Your task to perform on an android device: Add beats solo 3 to the cart on amazon.com, then select checkout. Image 0: 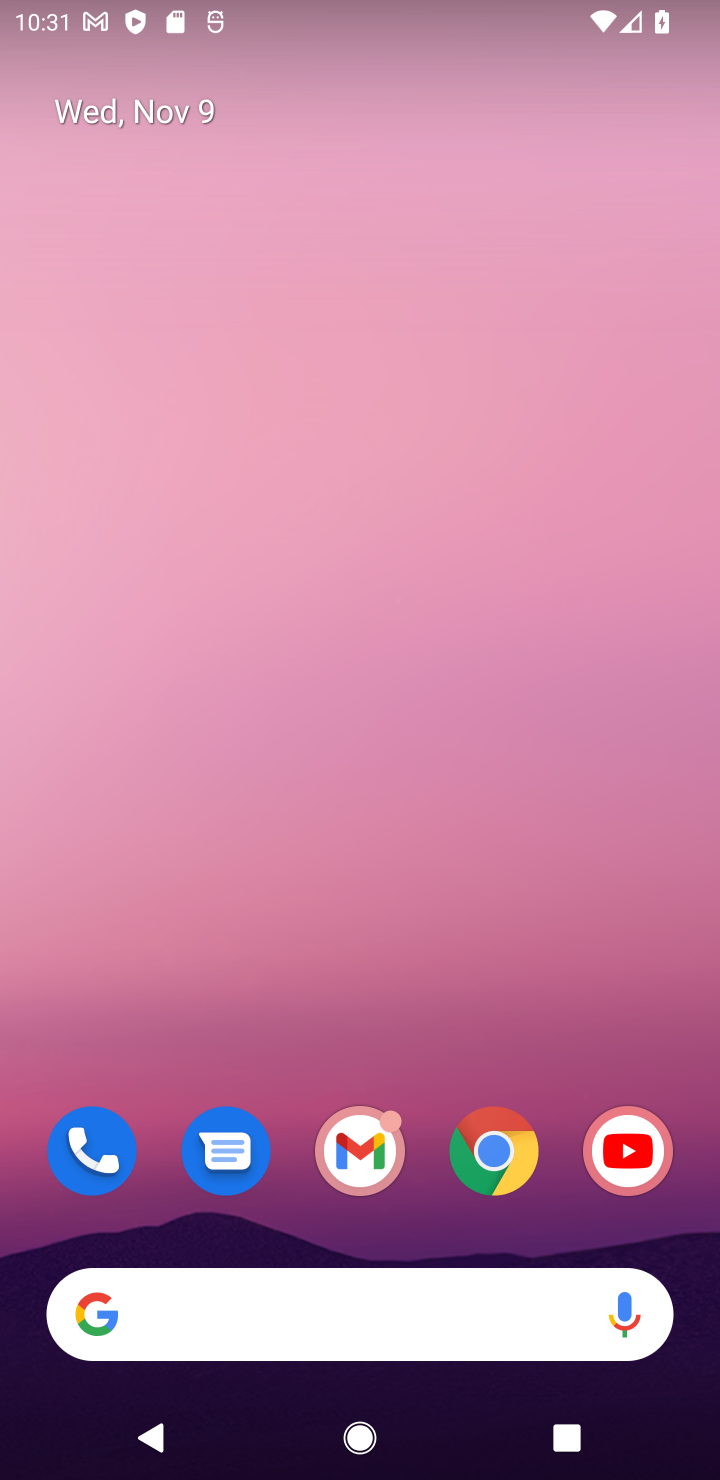
Step 0: click (498, 1154)
Your task to perform on an android device: Add beats solo 3 to the cart on amazon.com, then select checkout. Image 1: 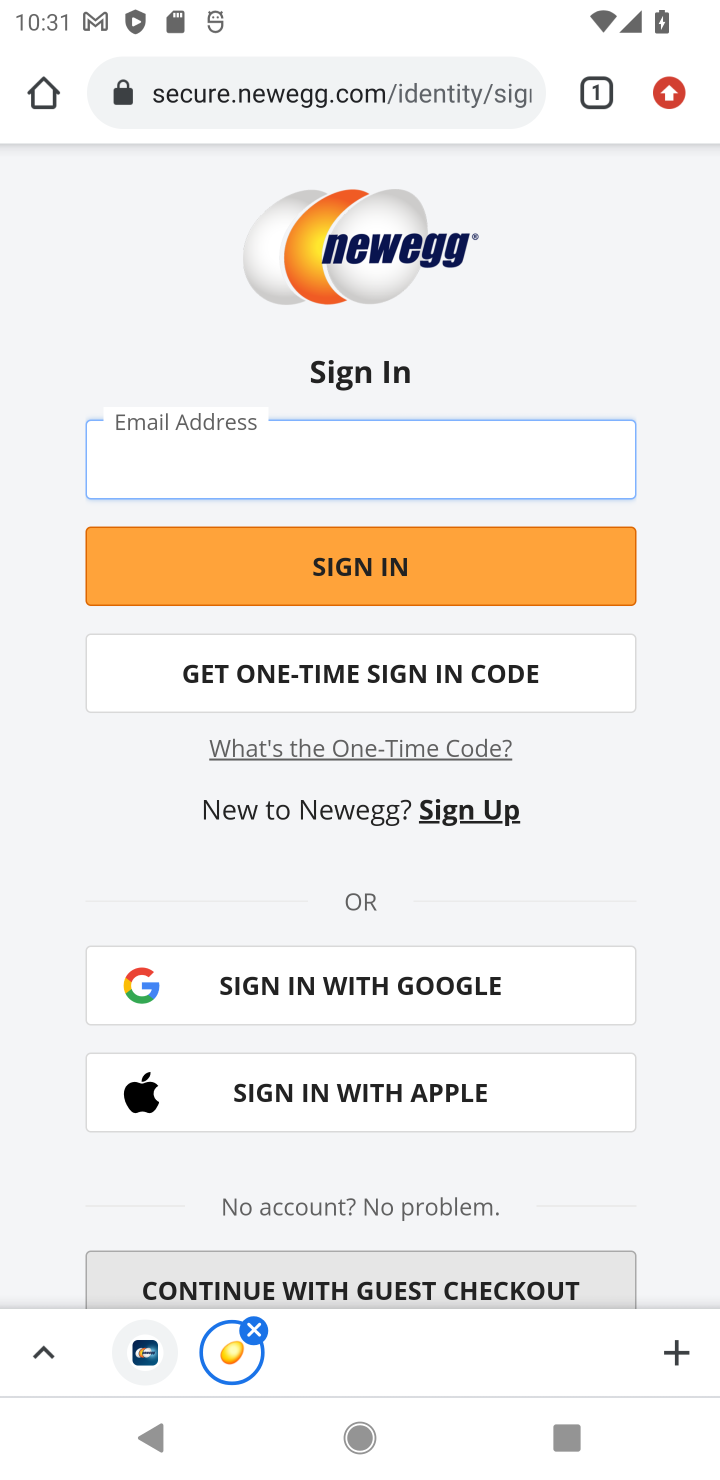
Step 1: click (266, 91)
Your task to perform on an android device: Add beats solo 3 to the cart on amazon.com, then select checkout. Image 2: 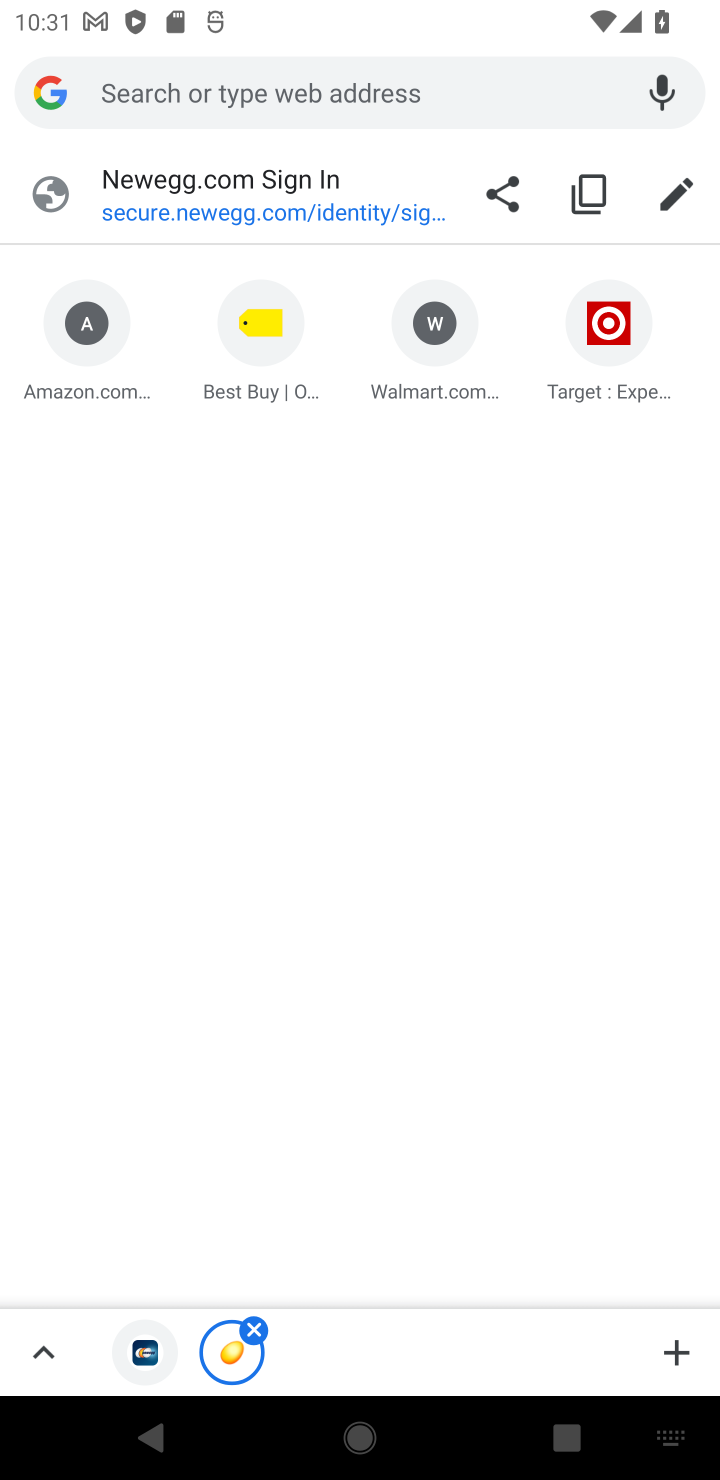
Step 2: click (75, 333)
Your task to perform on an android device: Add beats solo 3 to the cart on amazon.com, then select checkout. Image 3: 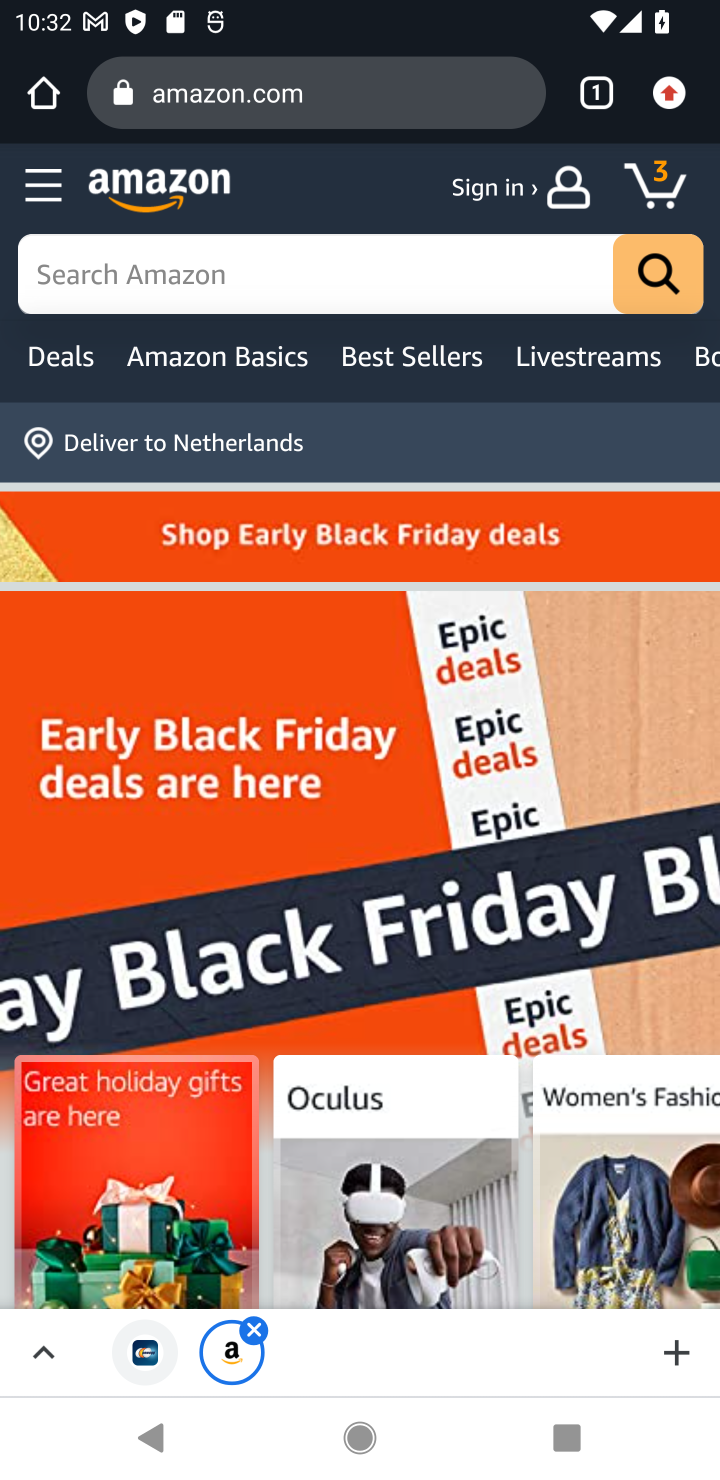
Step 3: click (501, 275)
Your task to perform on an android device: Add beats solo 3 to the cart on amazon.com, then select checkout. Image 4: 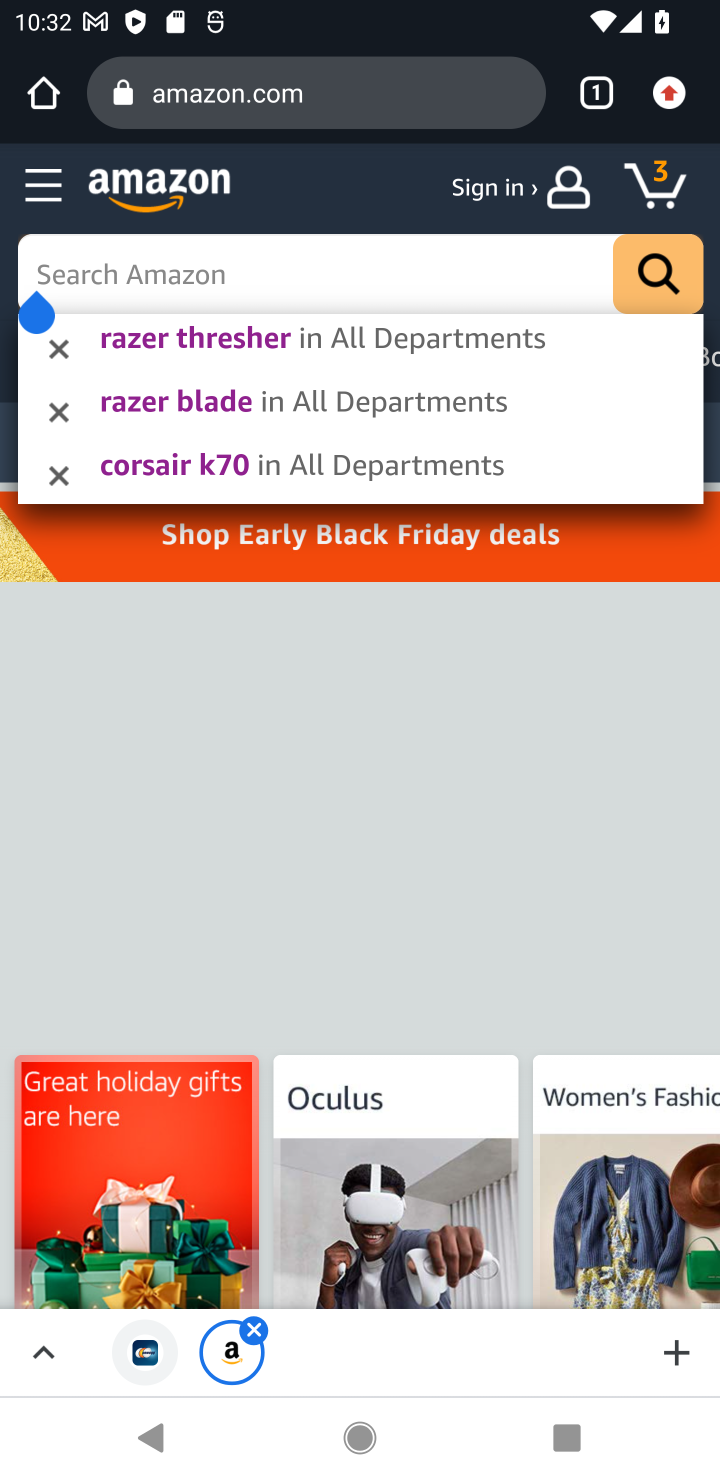
Step 4: type "beats solo 3"
Your task to perform on an android device: Add beats solo 3 to the cart on amazon.com, then select checkout. Image 5: 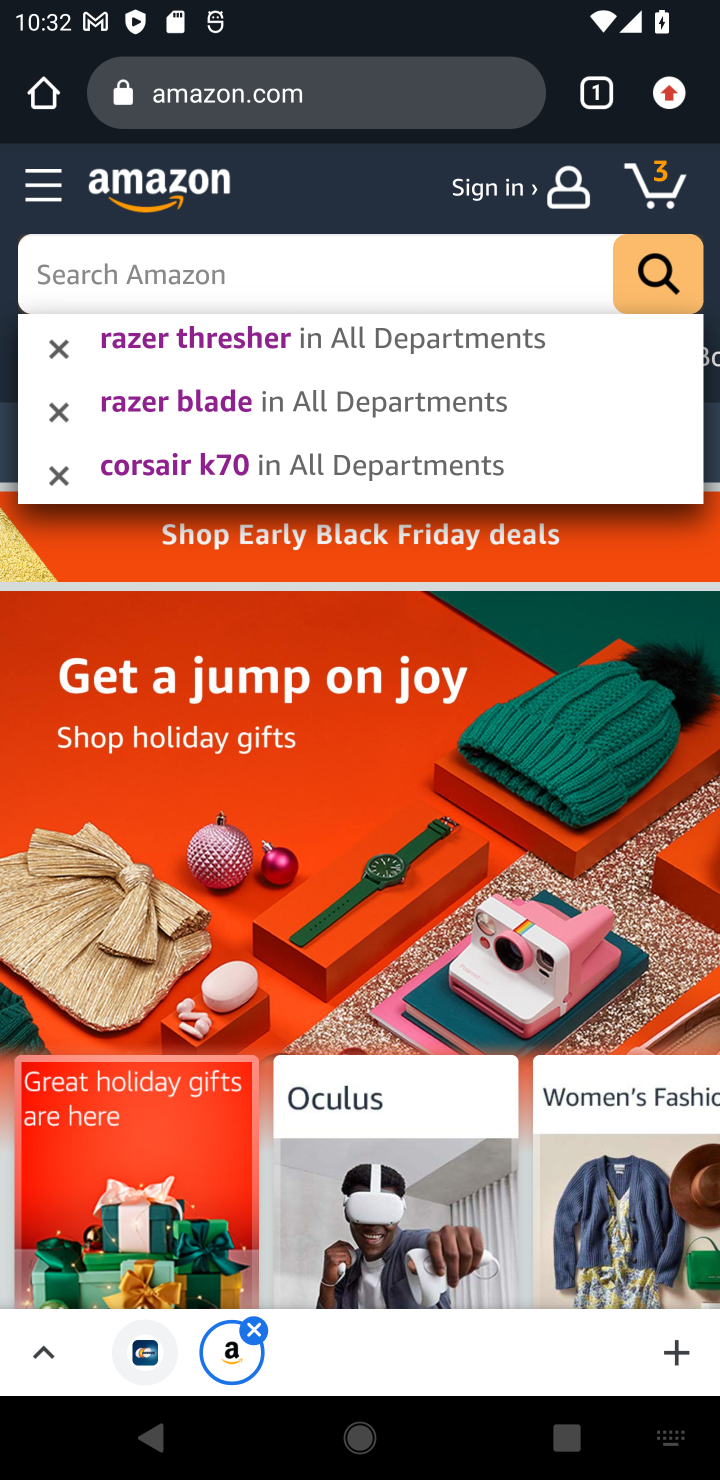
Step 5: press enter
Your task to perform on an android device: Add beats solo 3 to the cart on amazon.com, then select checkout. Image 6: 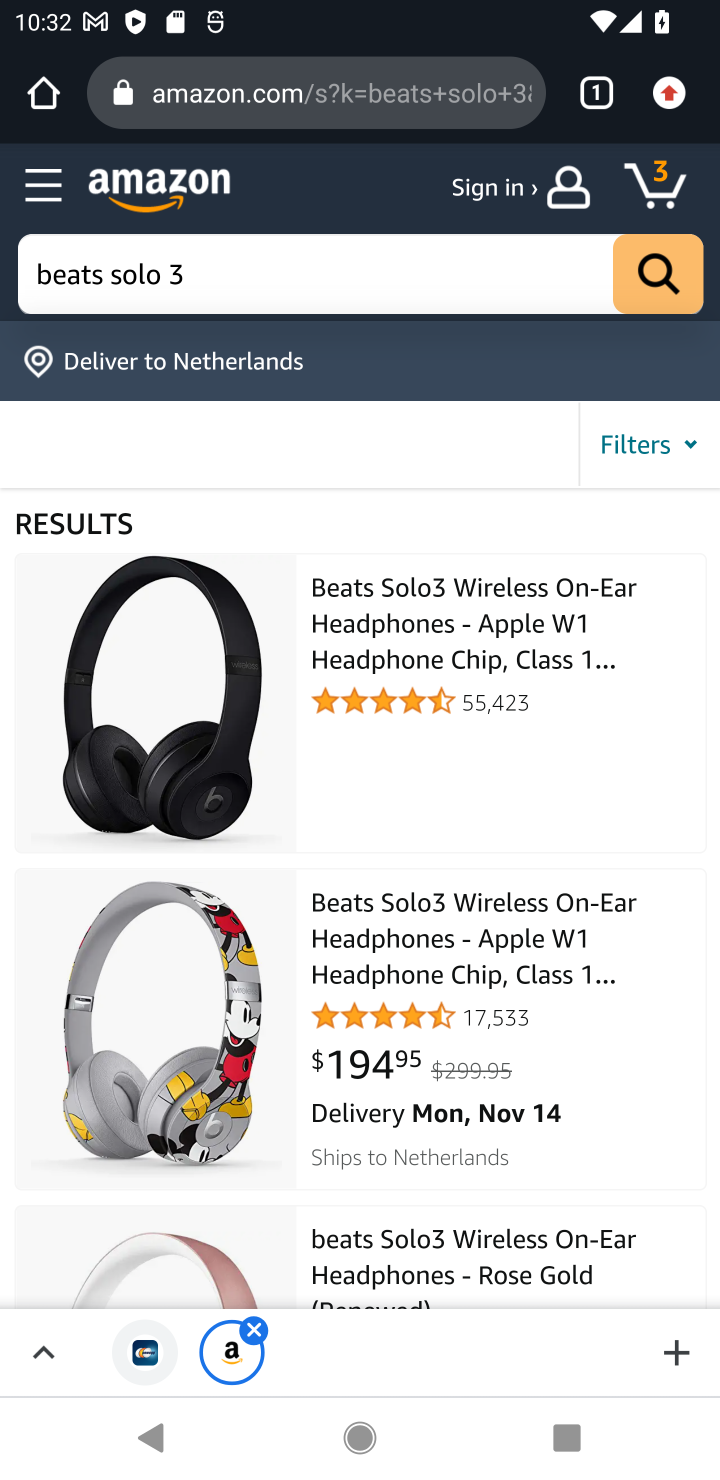
Step 6: click (147, 702)
Your task to perform on an android device: Add beats solo 3 to the cart on amazon.com, then select checkout. Image 7: 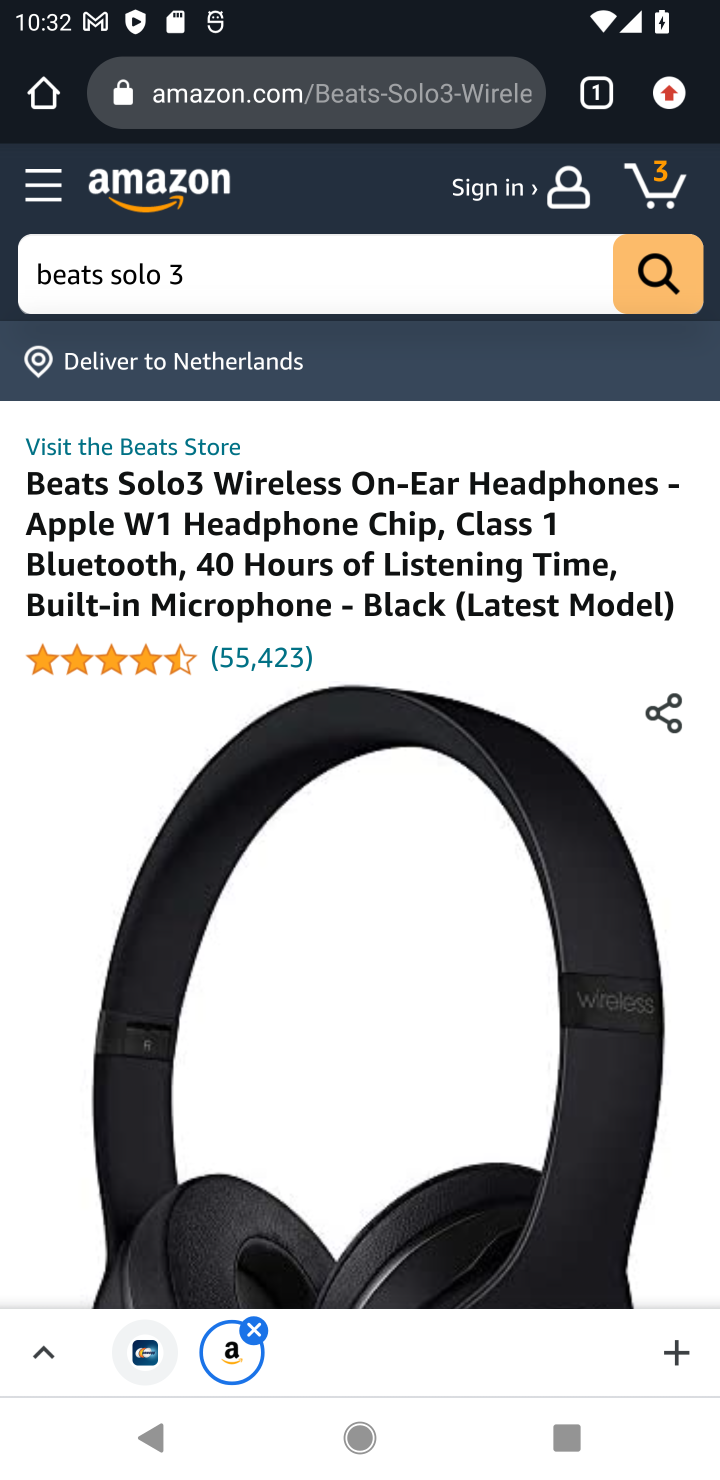
Step 7: drag from (532, 1142) to (533, 210)
Your task to perform on an android device: Add beats solo 3 to the cart on amazon.com, then select checkout. Image 8: 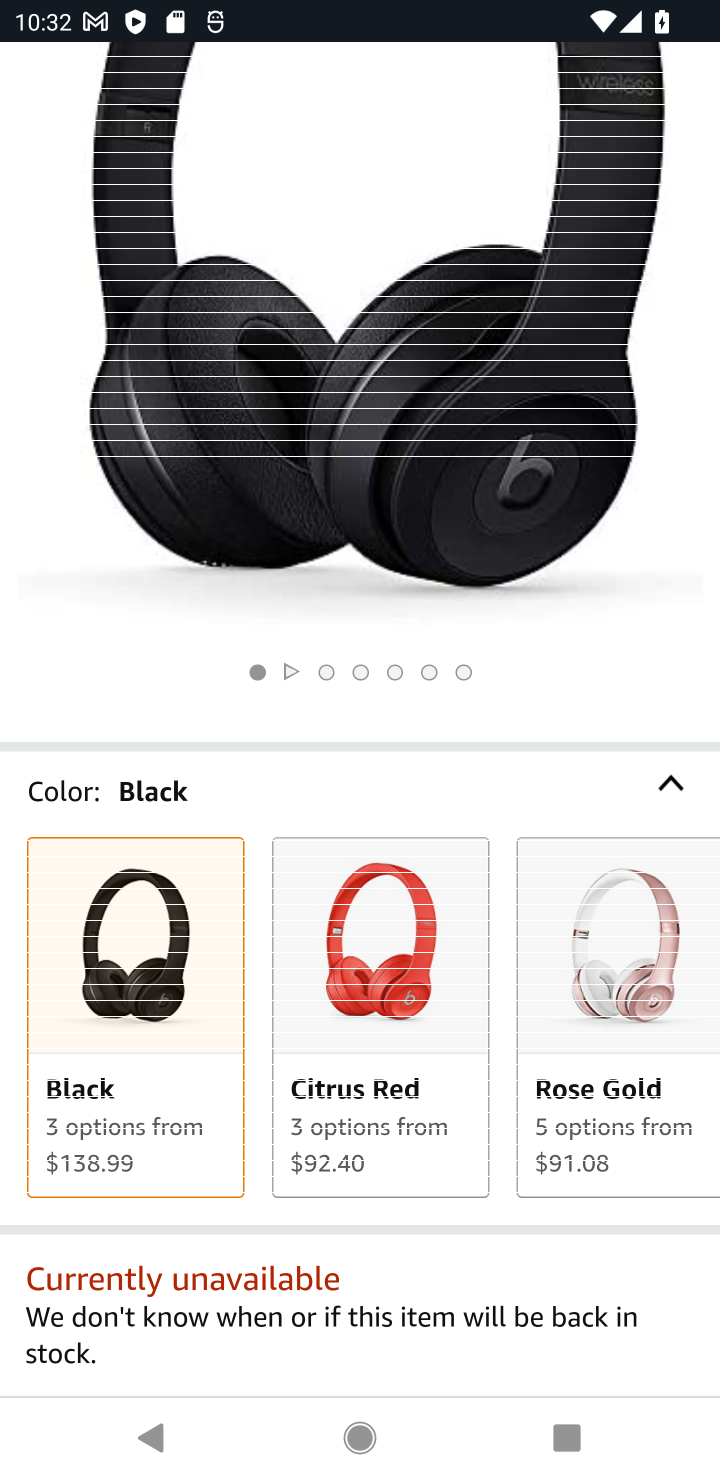
Step 8: drag from (519, 1232) to (520, 487)
Your task to perform on an android device: Add beats solo 3 to the cart on amazon.com, then select checkout. Image 9: 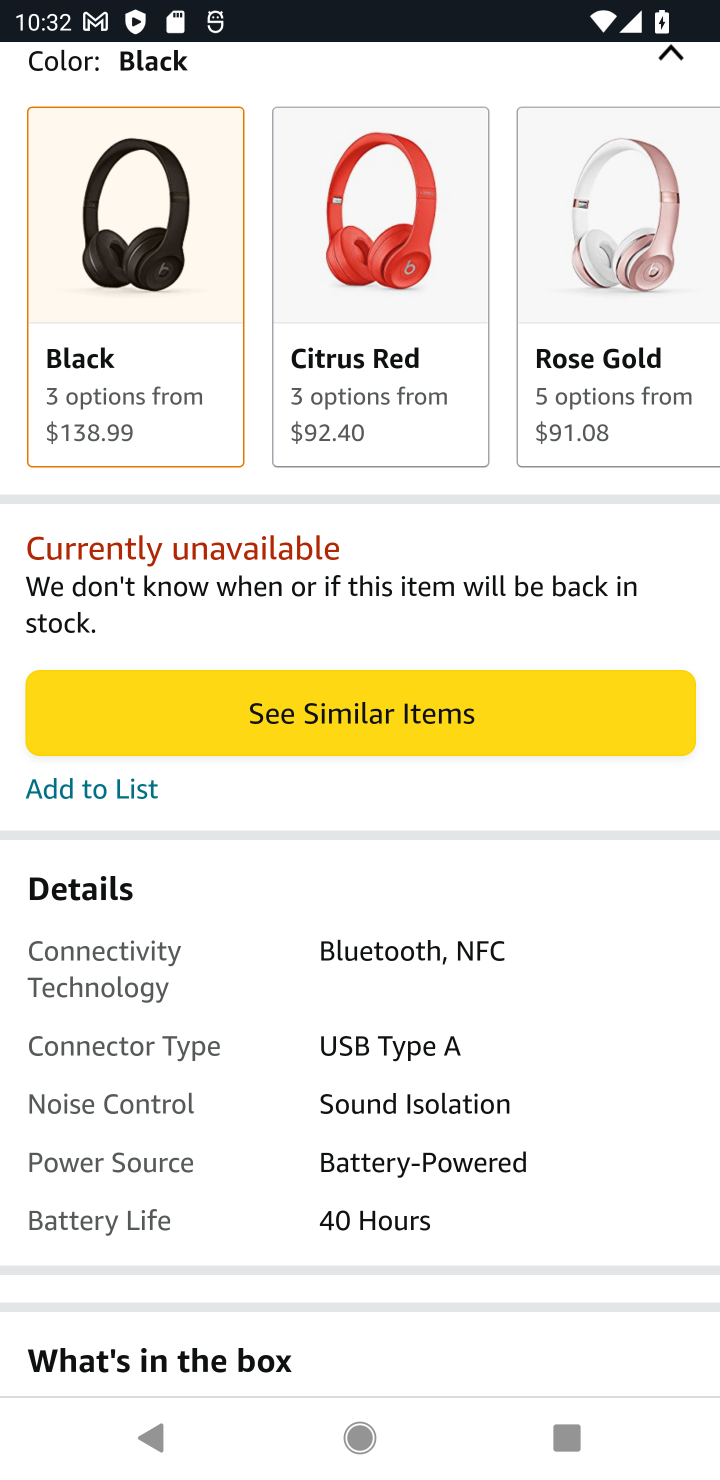
Step 9: press back button
Your task to perform on an android device: Add beats solo 3 to the cart on amazon.com, then select checkout. Image 10: 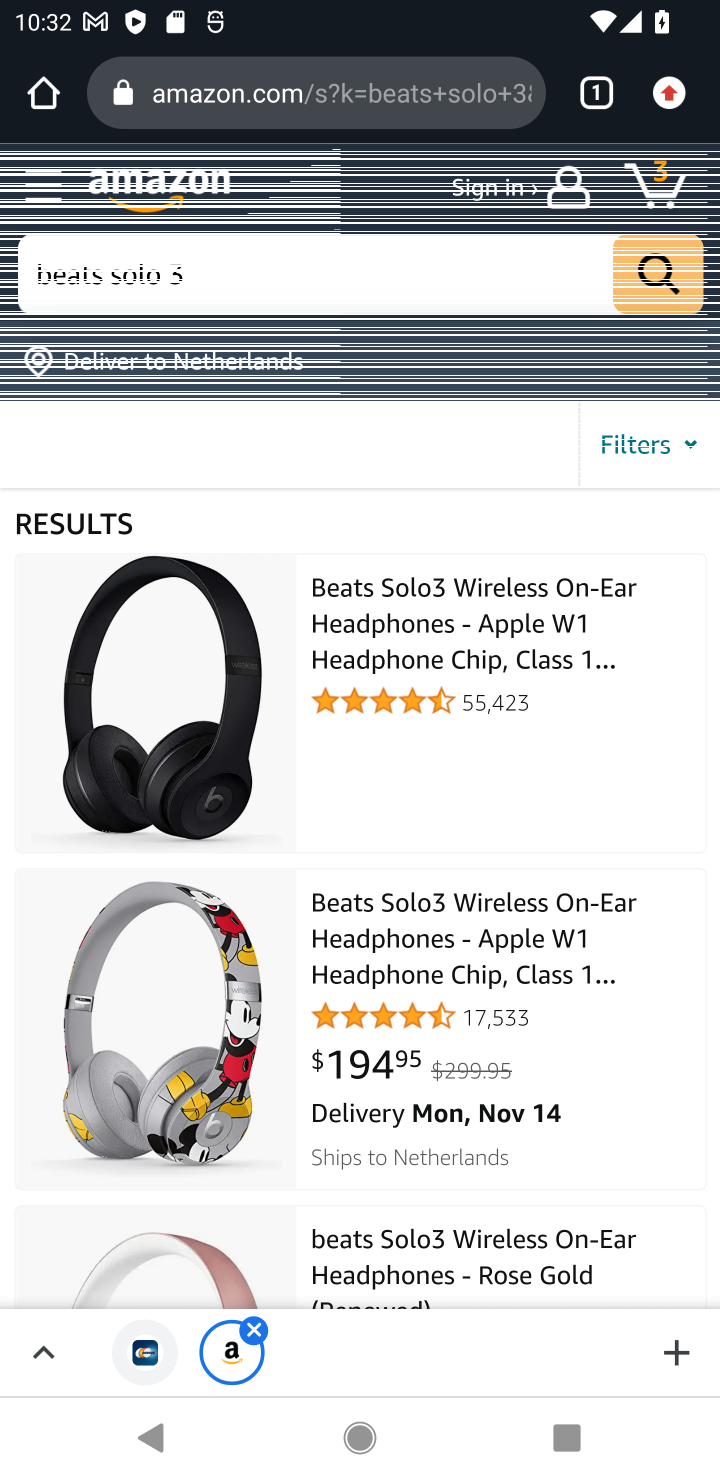
Step 10: click (175, 969)
Your task to perform on an android device: Add beats solo 3 to the cart on amazon.com, then select checkout. Image 11: 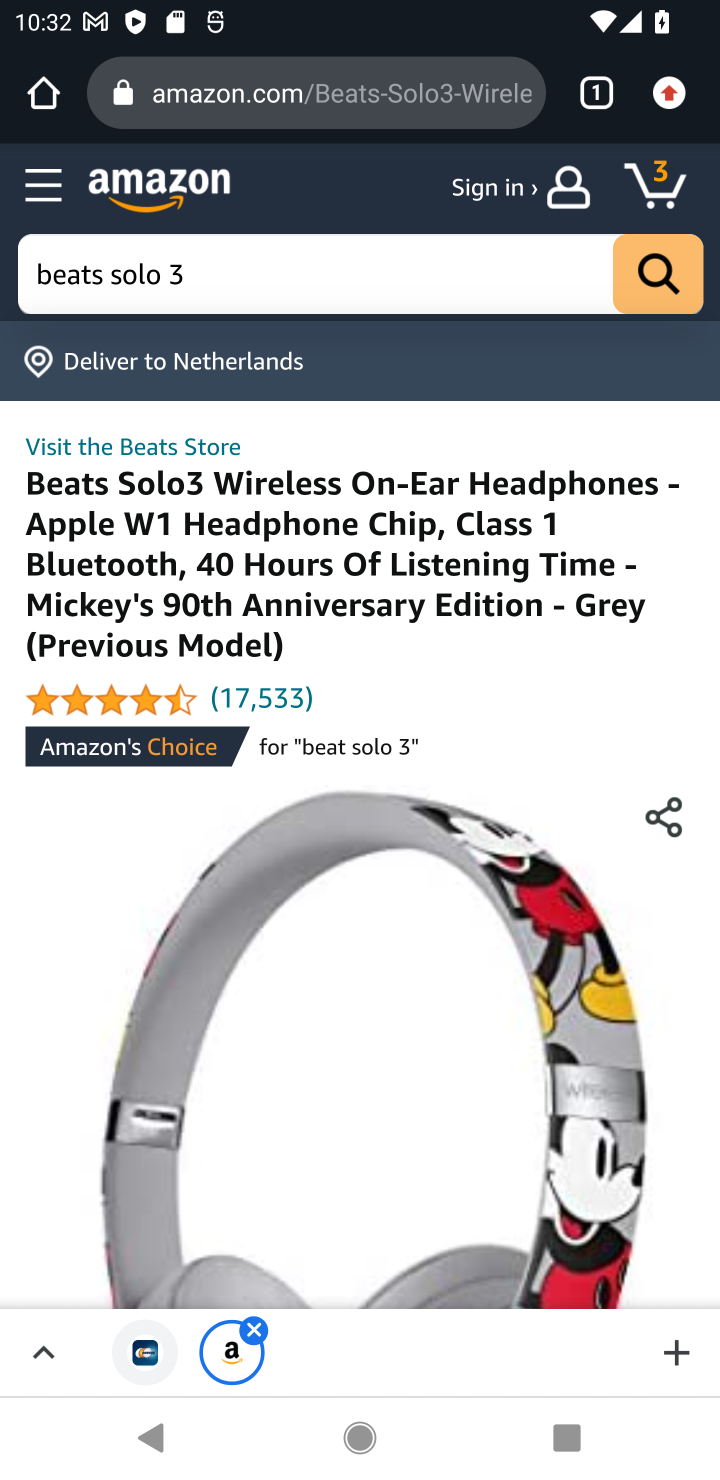
Step 11: drag from (409, 819) to (590, 364)
Your task to perform on an android device: Add beats solo 3 to the cart on amazon.com, then select checkout. Image 12: 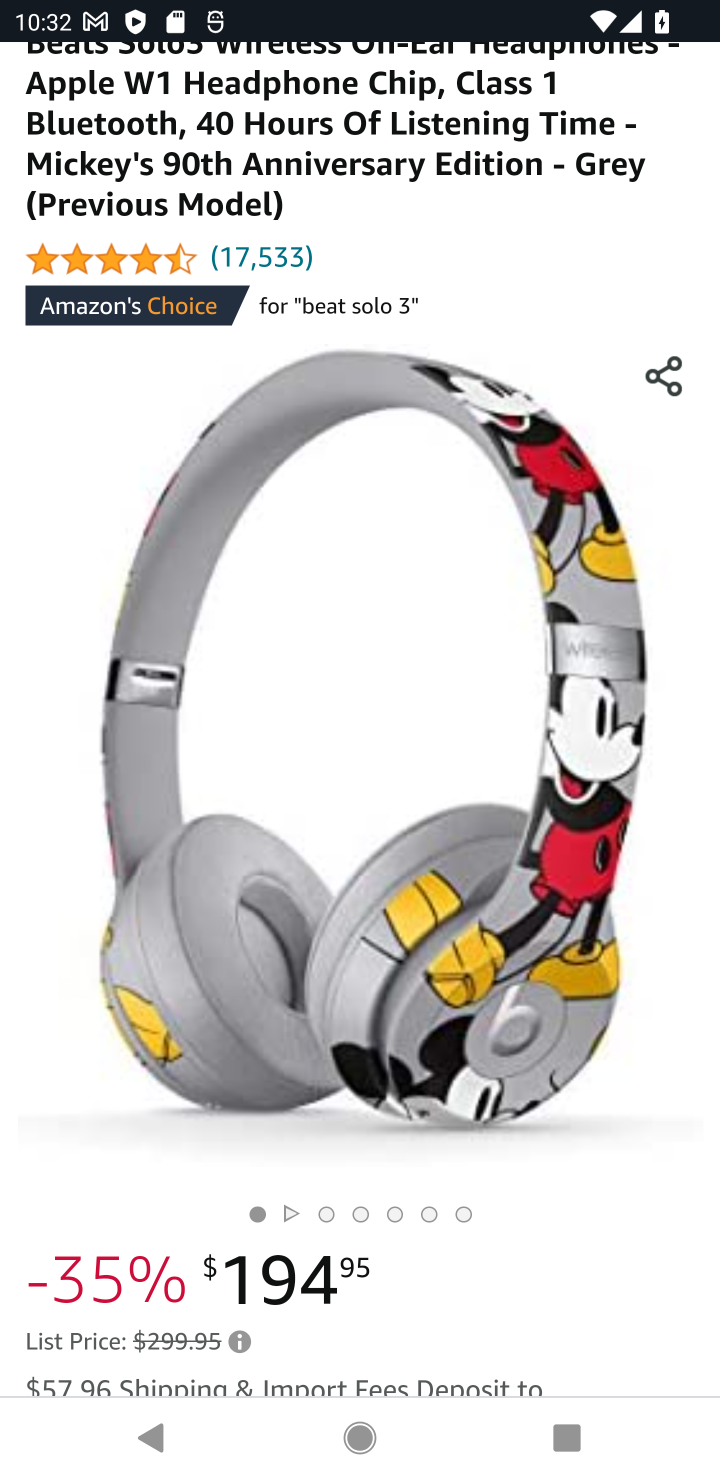
Step 12: drag from (590, 853) to (570, 306)
Your task to perform on an android device: Add beats solo 3 to the cart on amazon.com, then select checkout. Image 13: 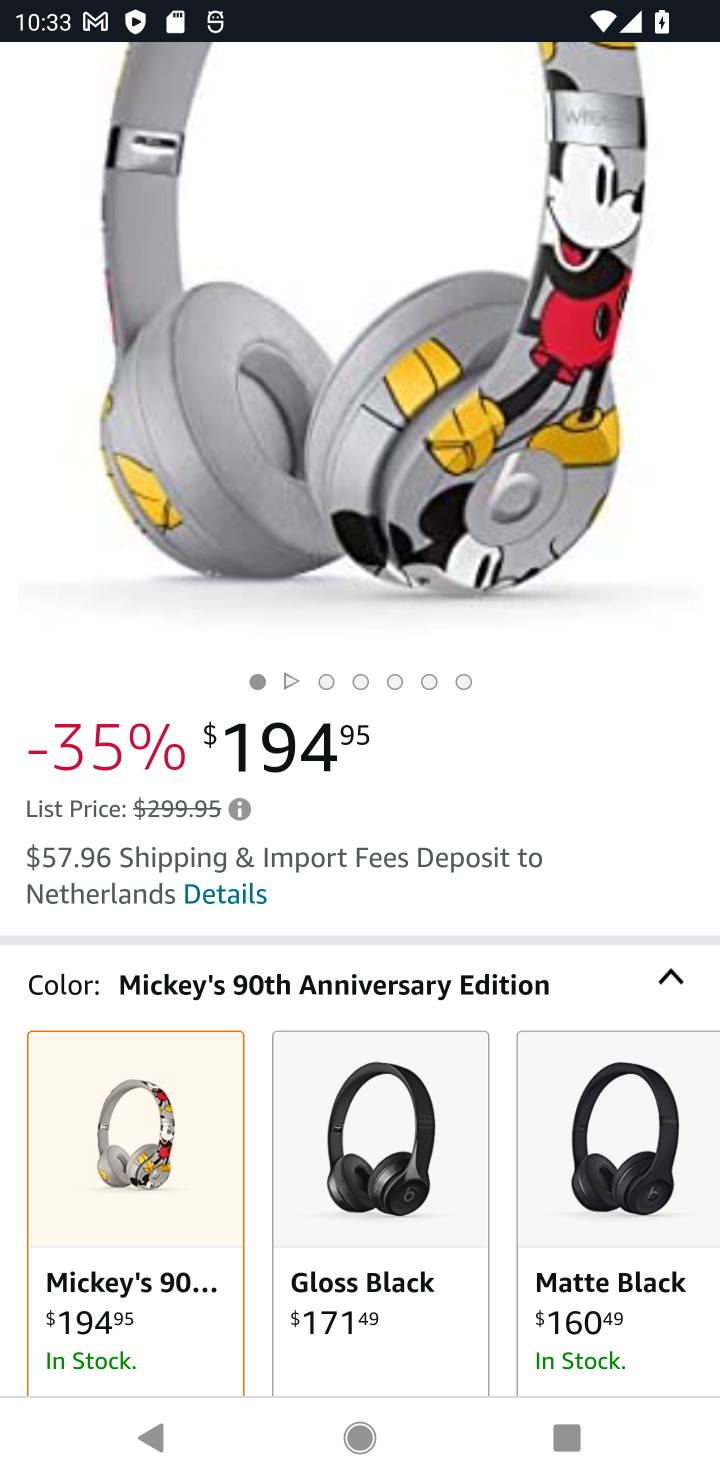
Step 13: drag from (508, 1281) to (480, 482)
Your task to perform on an android device: Add beats solo 3 to the cart on amazon.com, then select checkout. Image 14: 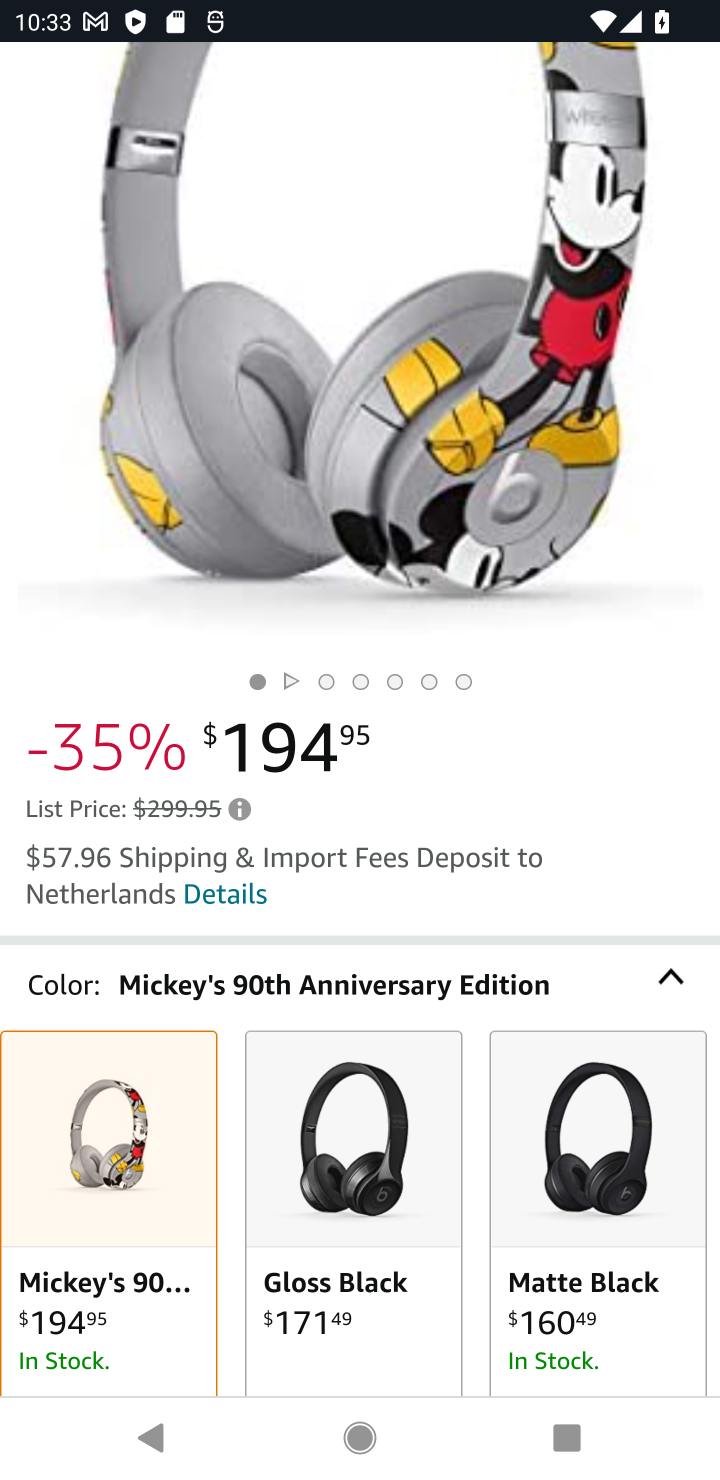
Step 14: drag from (579, 749) to (510, 304)
Your task to perform on an android device: Add beats solo 3 to the cart on amazon.com, then select checkout. Image 15: 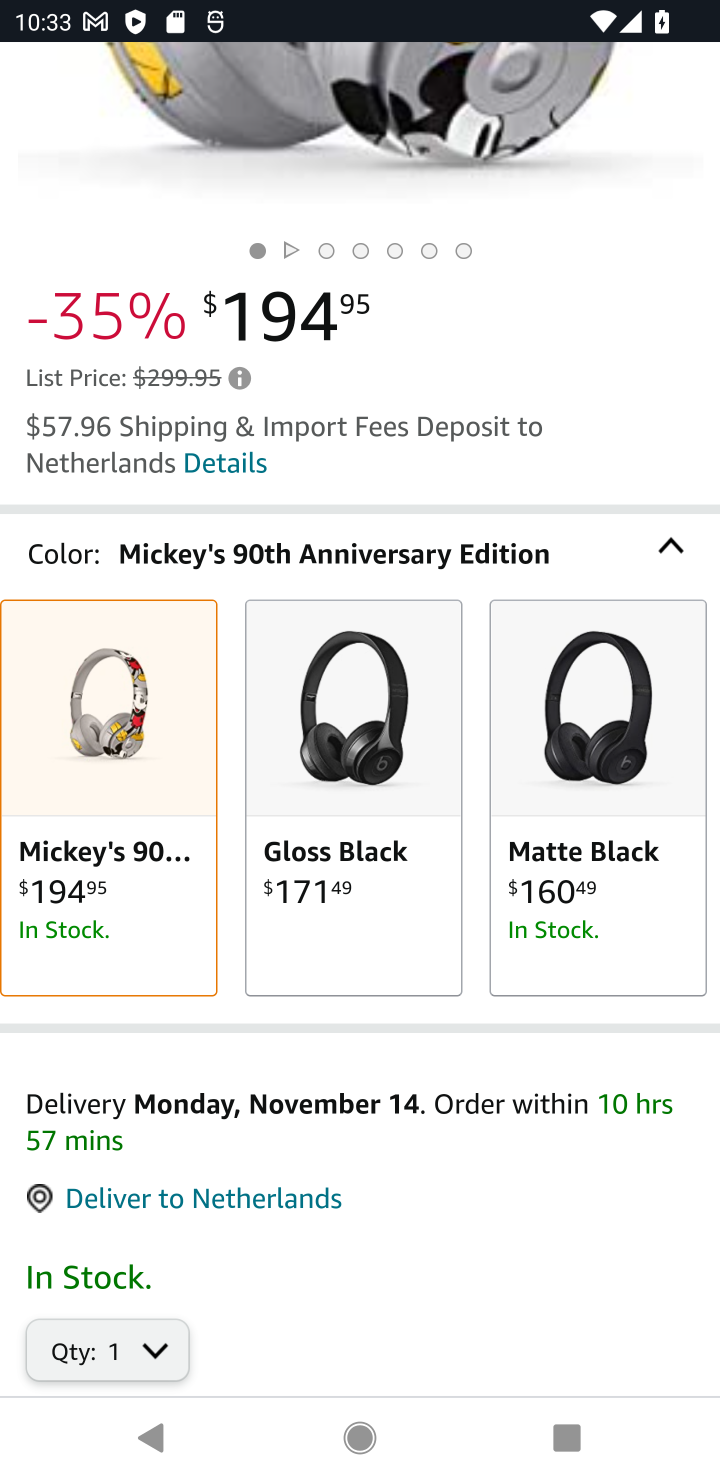
Step 15: drag from (548, 1188) to (449, 602)
Your task to perform on an android device: Add beats solo 3 to the cart on amazon.com, then select checkout. Image 16: 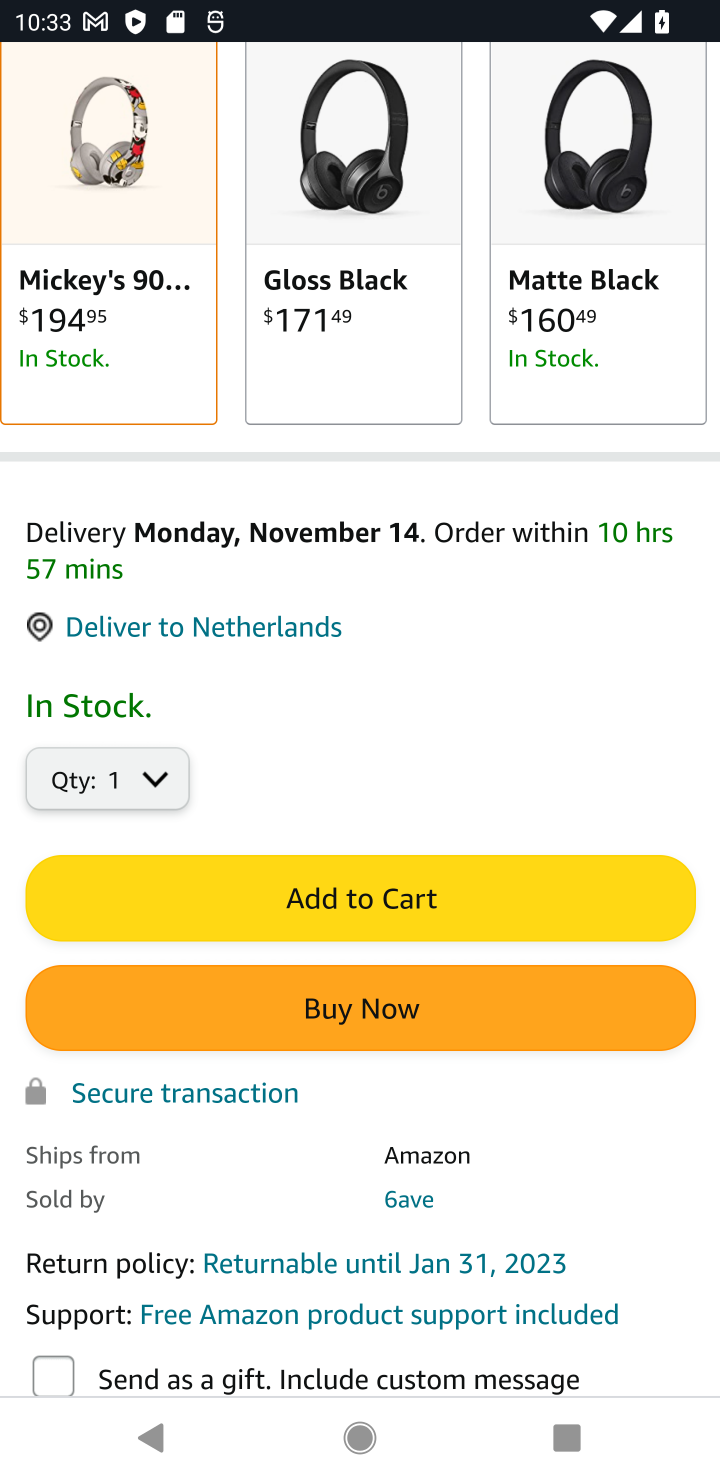
Step 16: click (395, 883)
Your task to perform on an android device: Add beats solo 3 to the cart on amazon.com, then select checkout. Image 17: 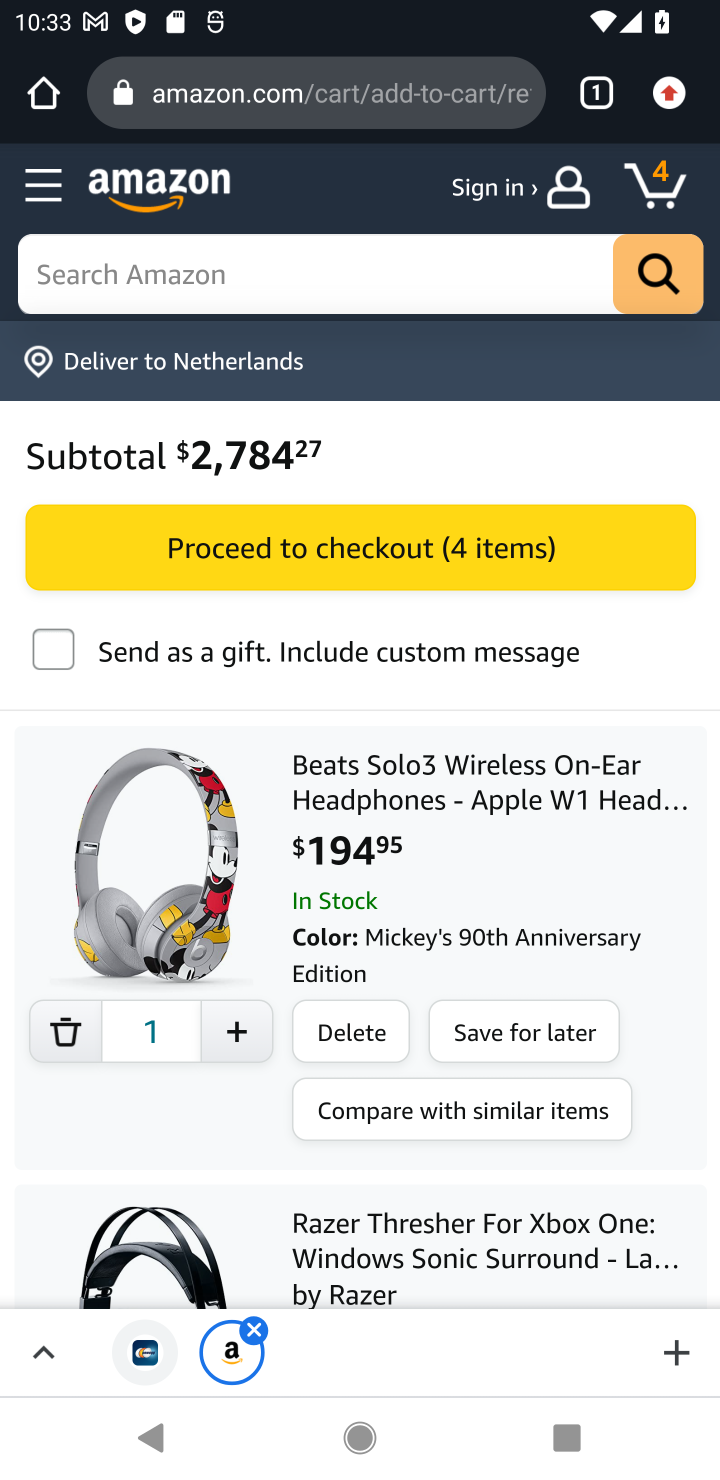
Step 17: click (378, 548)
Your task to perform on an android device: Add beats solo 3 to the cart on amazon.com, then select checkout. Image 18: 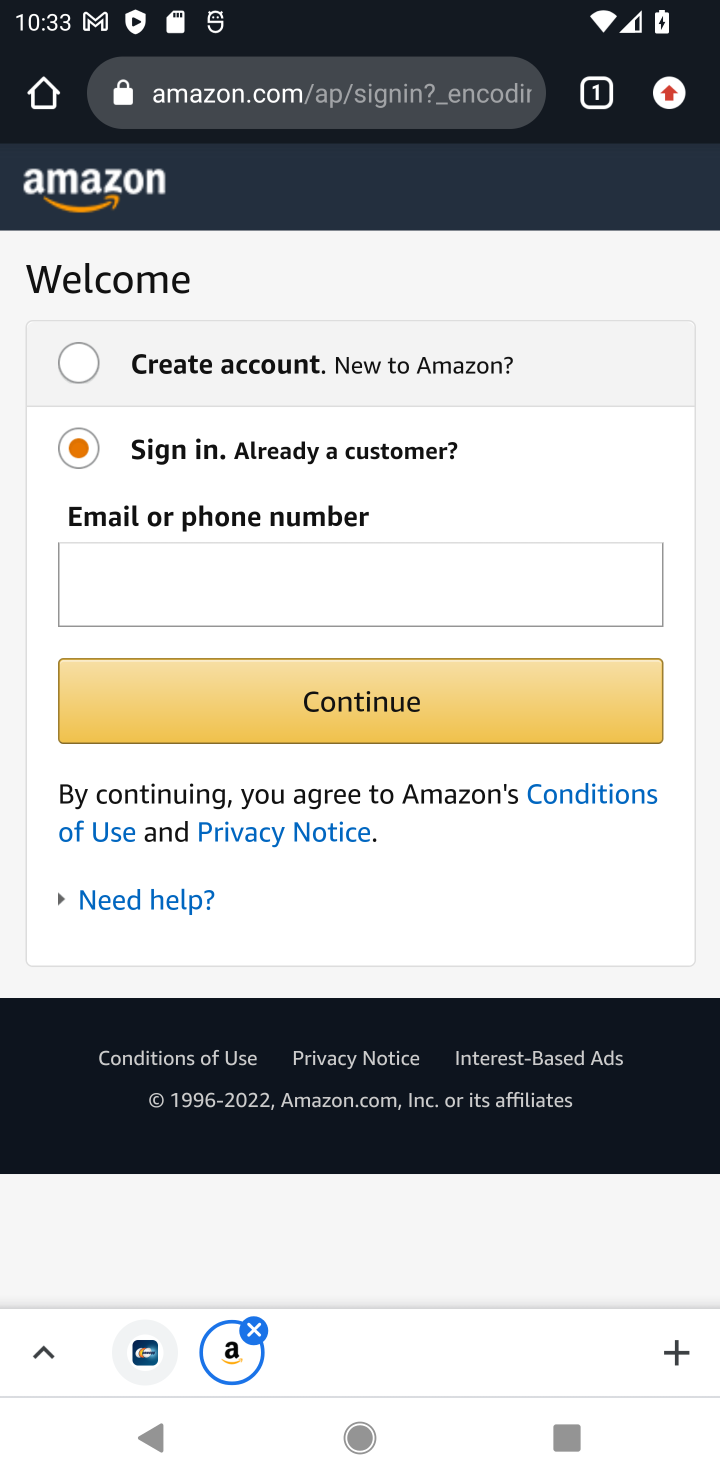
Step 18: task complete